Your task to perform on an android device: install app "File Manager" Image 0: 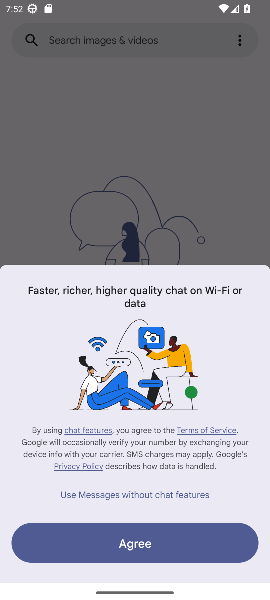
Step 0: press home button
Your task to perform on an android device: install app "File Manager" Image 1: 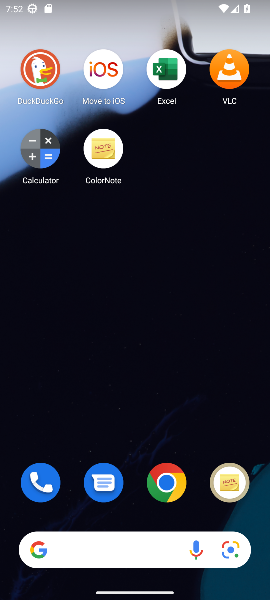
Step 1: drag from (147, 502) to (158, 5)
Your task to perform on an android device: install app "File Manager" Image 2: 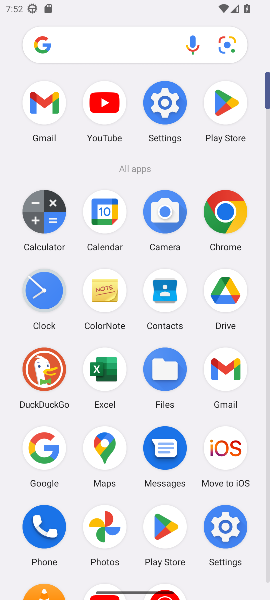
Step 2: click (226, 124)
Your task to perform on an android device: install app "File Manager" Image 3: 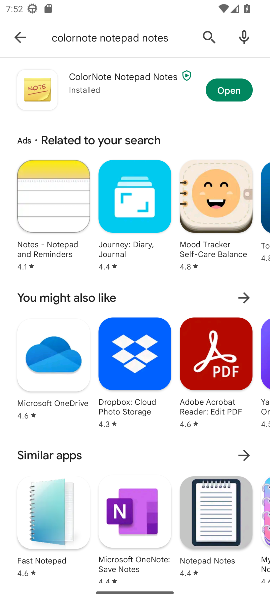
Step 3: click (119, 37)
Your task to perform on an android device: install app "File Manager" Image 4: 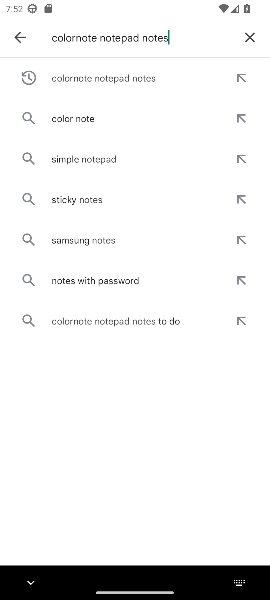
Step 4: click (254, 35)
Your task to perform on an android device: install app "File Manager" Image 5: 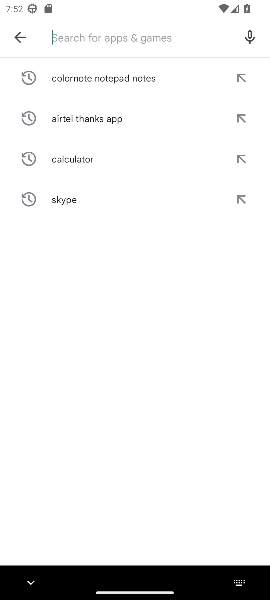
Step 5: type ""
Your task to perform on an android device: install app "File Manager" Image 6: 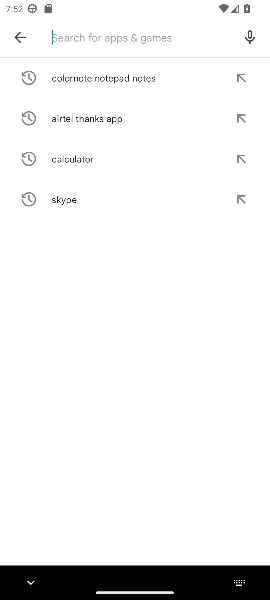
Step 6: type "file manager"
Your task to perform on an android device: install app "File Manager" Image 7: 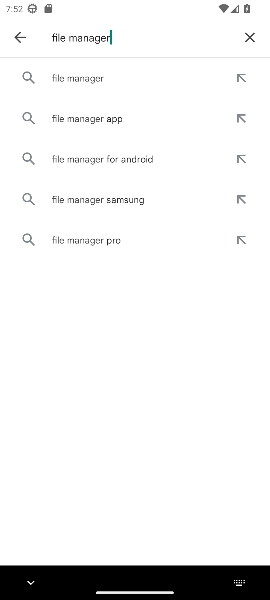
Step 7: click (106, 77)
Your task to perform on an android device: install app "File Manager" Image 8: 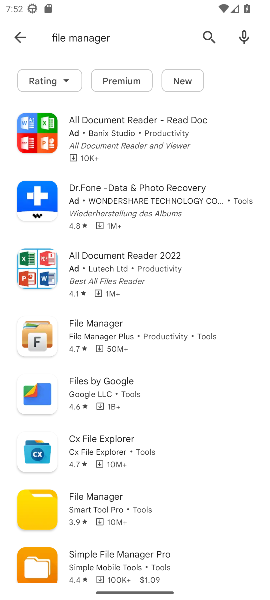
Step 8: click (114, 335)
Your task to perform on an android device: install app "File Manager" Image 9: 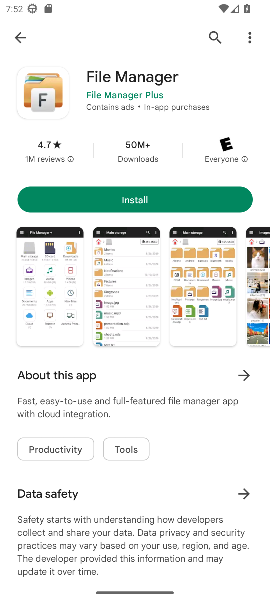
Step 9: click (157, 194)
Your task to perform on an android device: install app "File Manager" Image 10: 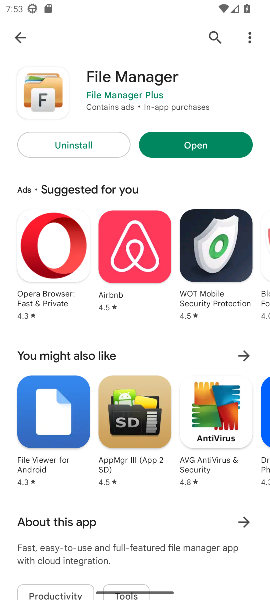
Step 10: task complete